Your task to perform on an android device: Open Android settings Image 0: 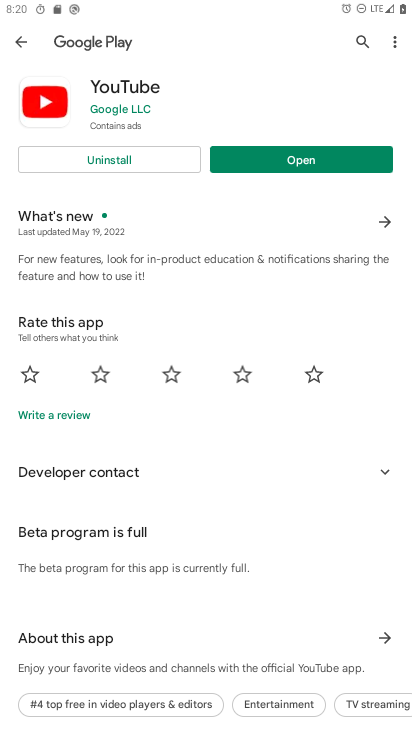
Step 0: press home button
Your task to perform on an android device: Open Android settings Image 1: 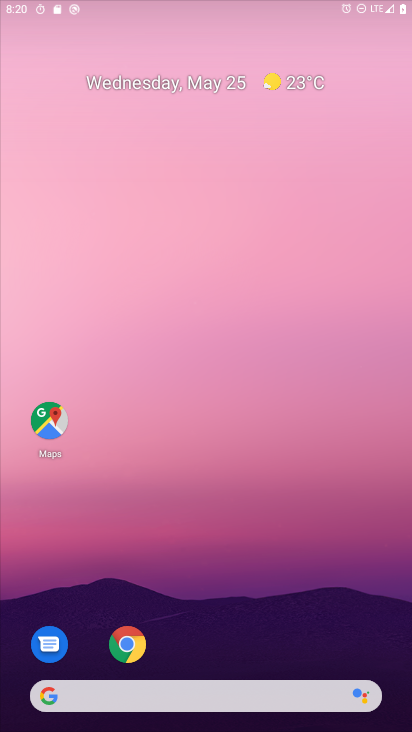
Step 1: drag from (378, 618) to (282, 9)
Your task to perform on an android device: Open Android settings Image 2: 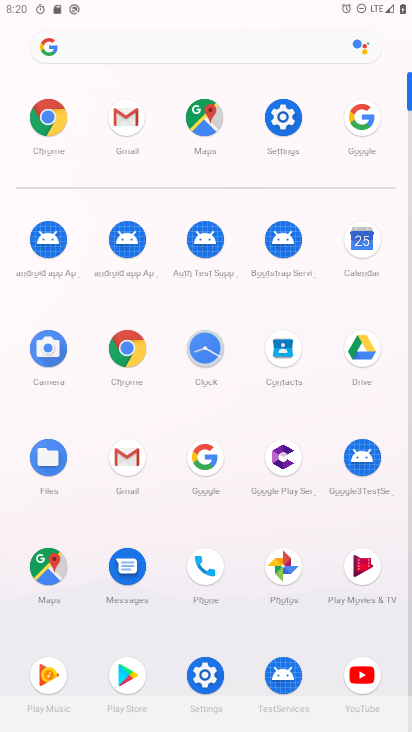
Step 2: click (212, 673)
Your task to perform on an android device: Open Android settings Image 3: 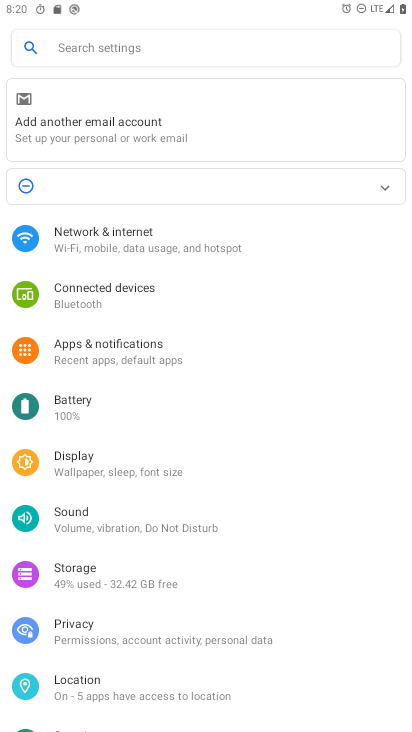
Step 3: drag from (211, 674) to (246, 106)
Your task to perform on an android device: Open Android settings Image 4: 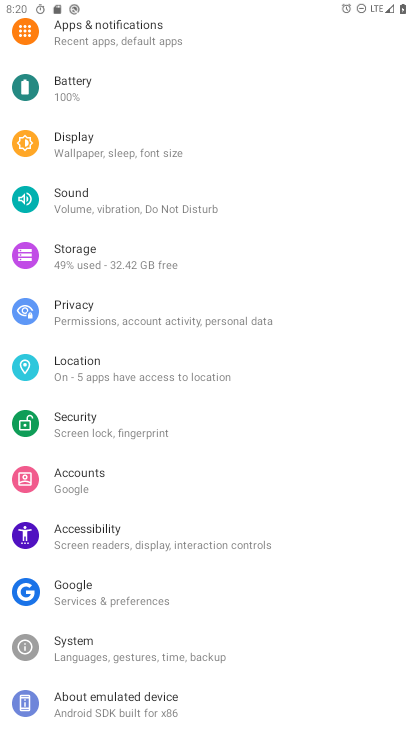
Step 4: click (182, 692)
Your task to perform on an android device: Open Android settings Image 5: 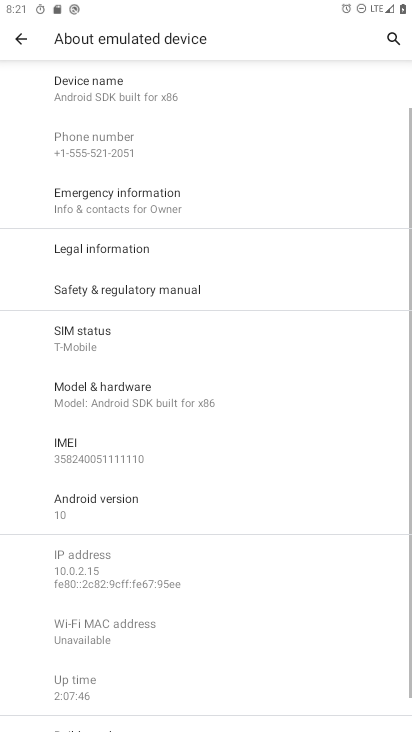
Step 5: click (145, 502)
Your task to perform on an android device: Open Android settings Image 6: 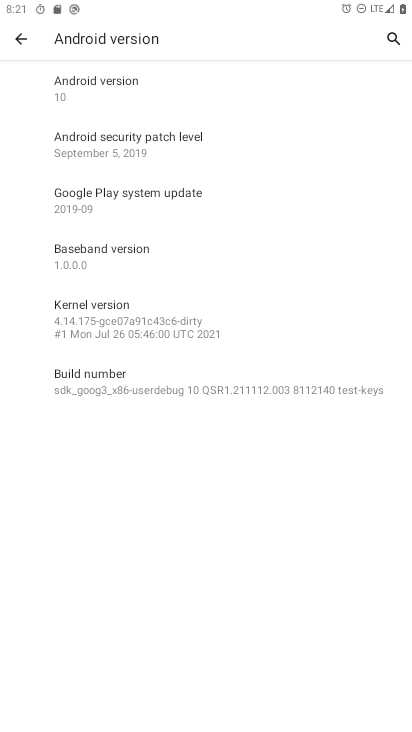
Step 6: task complete